Your task to perform on an android device: create a new album in the google photos Image 0: 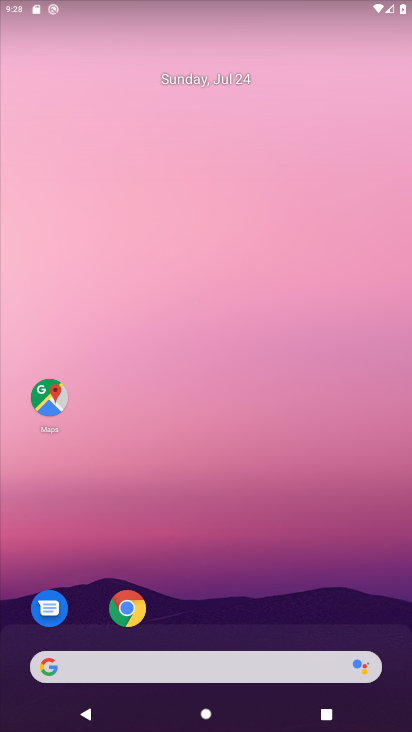
Step 0: drag from (313, 608) to (227, 4)
Your task to perform on an android device: create a new album in the google photos Image 1: 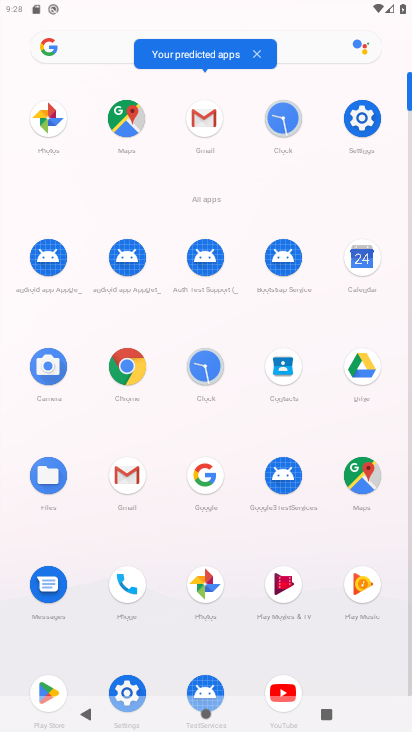
Step 1: click (198, 581)
Your task to perform on an android device: create a new album in the google photos Image 2: 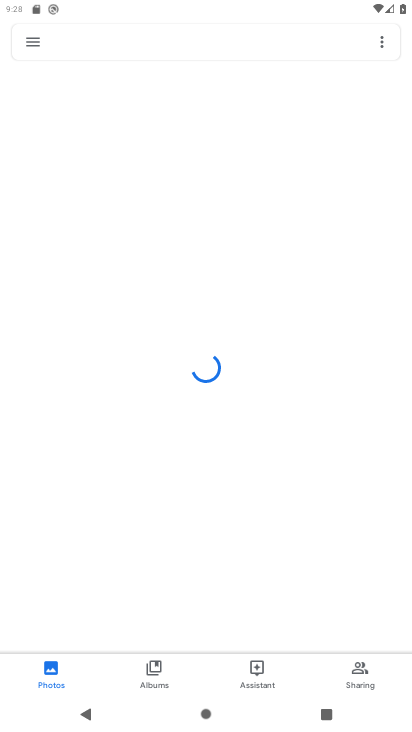
Step 2: click (157, 667)
Your task to perform on an android device: create a new album in the google photos Image 3: 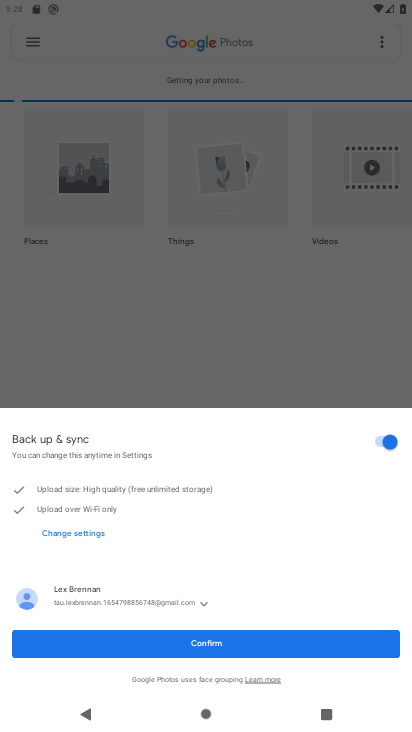
Step 3: click (203, 647)
Your task to perform on an android device: create a new album in the google photos Image 4: 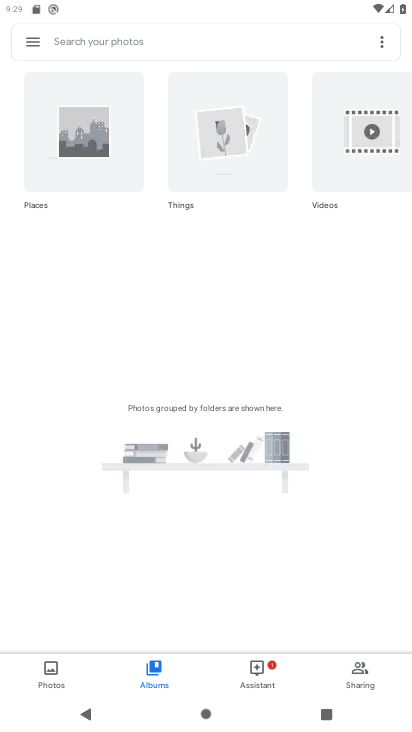
Step 4: click (384, 46)
Your task to perform on an android device: create a new album in the google photos Image 5: 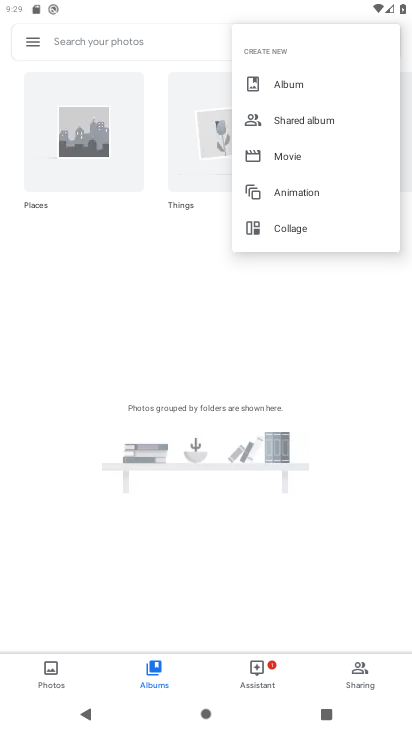
Step 5: click (310, 81)
Your task to perform on an android device: create a new album in the google photos Image 6: 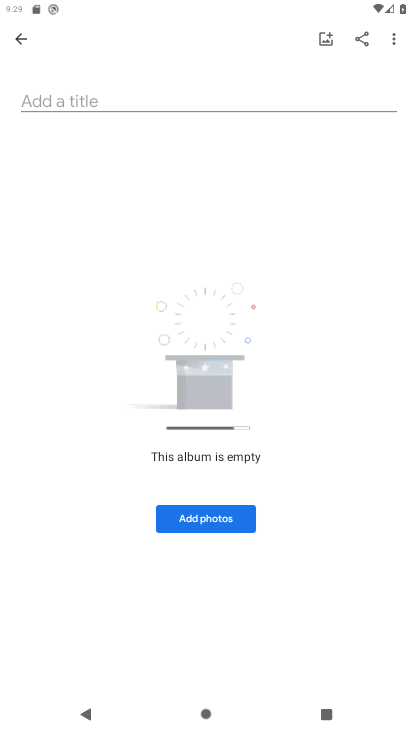
Step 6: click (237, 98)
Your task to perform on an android device: create a new album in the google photos Image 7: 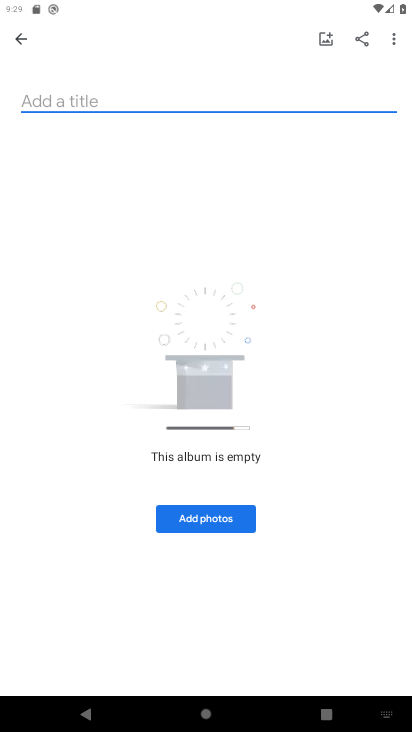
Step 7: type "njk"
Your task to perform on an android device: create a new album in the google photos Image 8: 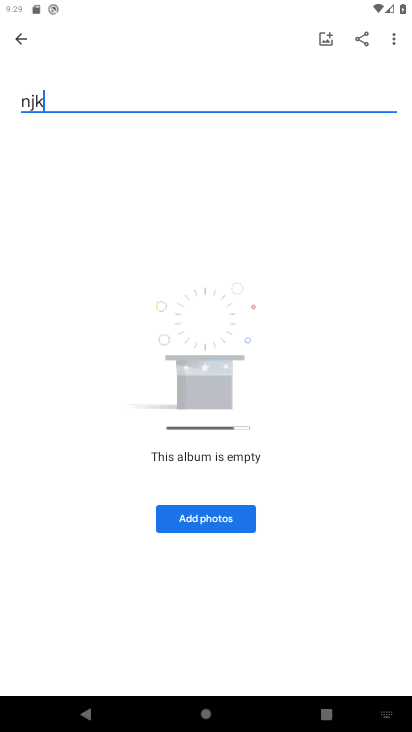
Step 8: click (195, 524)
Your task to perform on an android device: create a new album in the google photos Image 9: 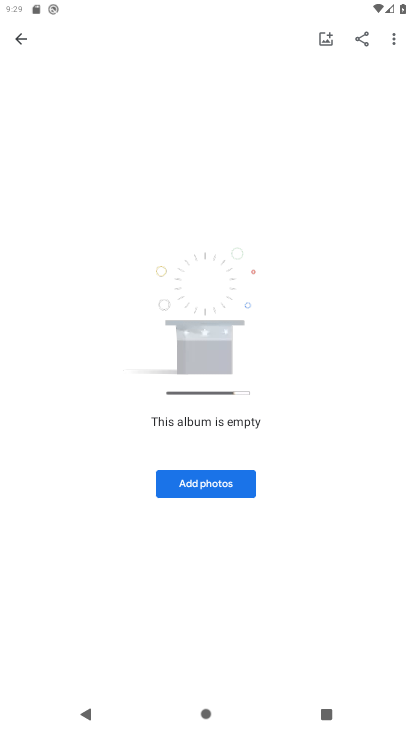
Step 9: click (211, 486)
Your task to perform on an android device: create a new album in the google photos Image 10: 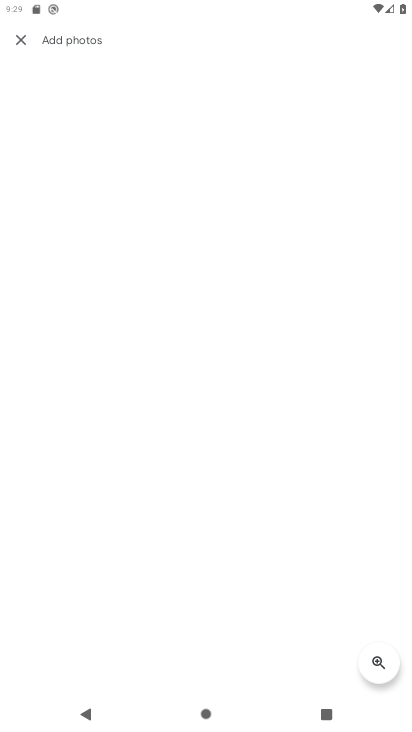
Step 10: task complete